Your task to perform on an android device: Show me the best rated vacuum on Walmart. Image 0: 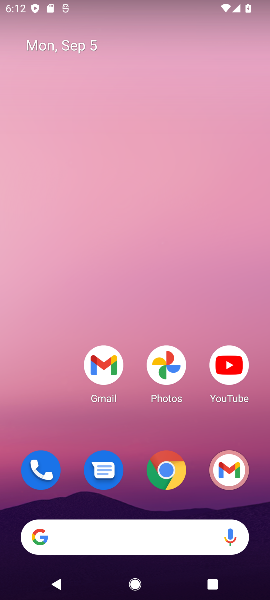
Step 0: click (120, 534)
Your task to perform on an android device: Show me the best rated vacuum on Walmart. Image 1: 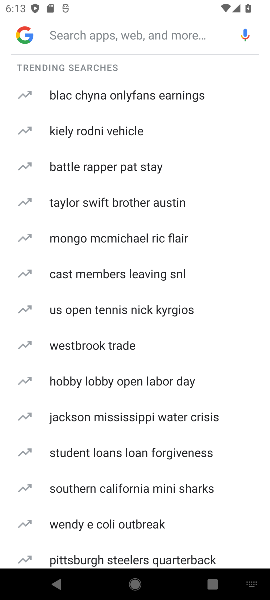
Step 1: type "walmart"
Your task to perform on an android device: Show me the best rated vacuum on Walmart. Image 2: 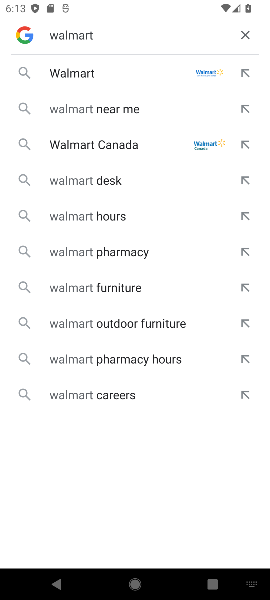
Step 2: click (92, 74)
Your task to perform on an android device: Show me the best rated vacuum on Walmart. Image 3: 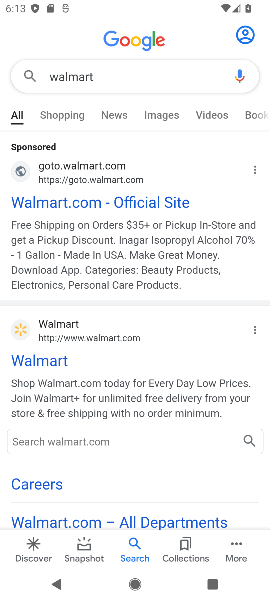
Step 3: click (82, 197)
Your task to perform on an android device: Show me the best rated vacuum on Walmart. Image 4: 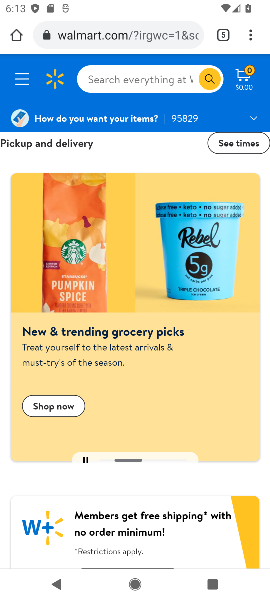
Step 4: click (130, 76)
Your task to perform on an android device: Show me the best rated vacuum on Walmart. Image 5: 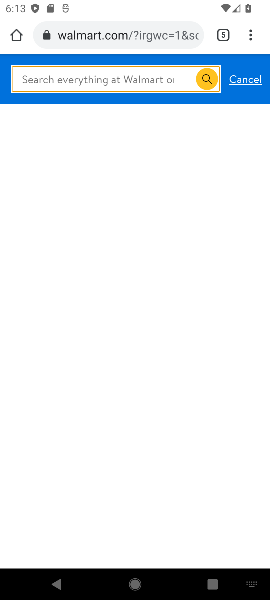
Step 5: type "best vacuun"
Your task to perform on an android device: Show me the best rated vacuum on Walmart. Image 6: 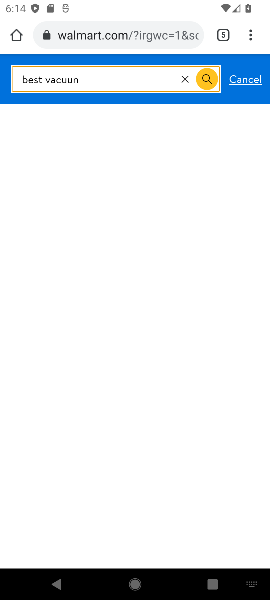
Step 6: click (206, 81)
Your task to perform on an android device: Show me the best rated vacuum on Walmart. Image 7: 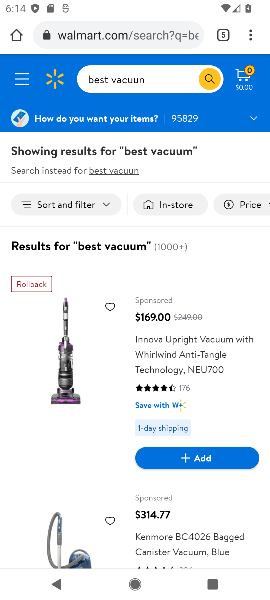
Step 7: drag from (239, 447) to (237, 355)
Your task to perform on an android device: Show me the best rated vacuum on Walmart. Image 8: 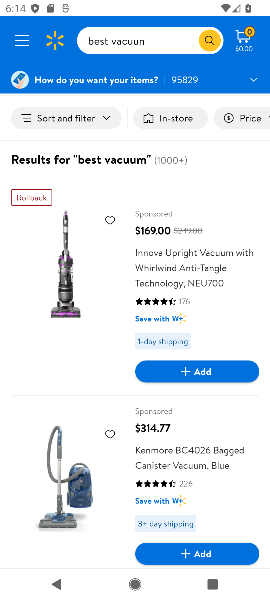
Step 8: click (239, 396)
Your task to perform on an android device: Show me the best rated vacuum on Walmart. Image 9: 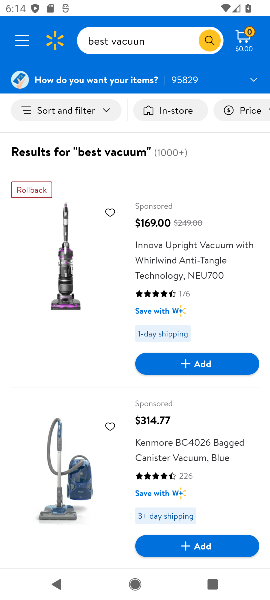
Step 9: task complete